Your task to perform on an android device: Open Youtube and go to "Your channel" Image 0: 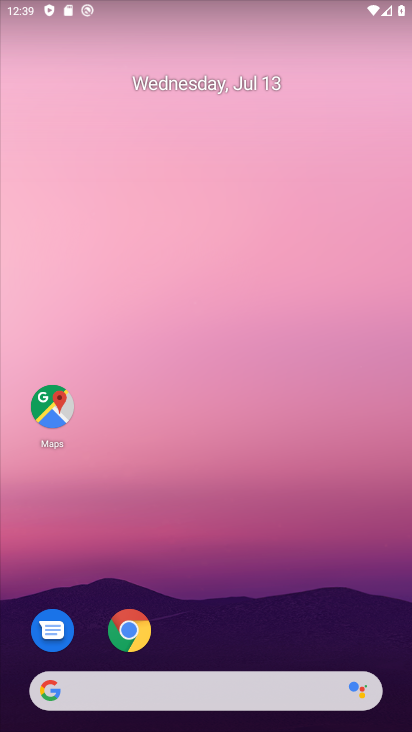
Step 0: drag from (33, 725) to (367, 95)
Your task to perform on an android device: Open Youtube and go to "Your channel" Image 1: 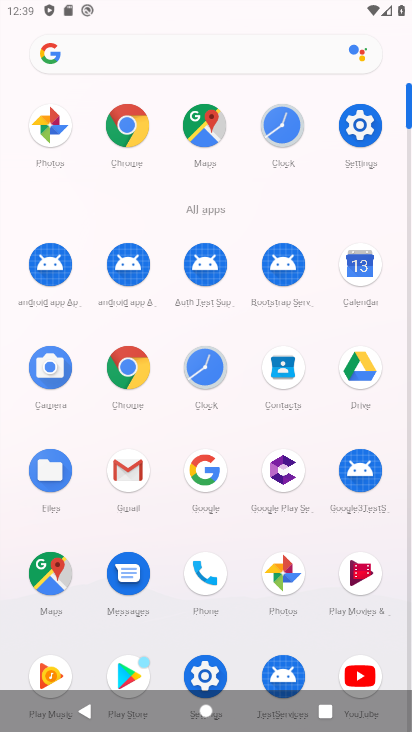
Step 1: click (373, 662)
Your task to perform on an android device: Open Youtube and go to "Your channel" Image 2: 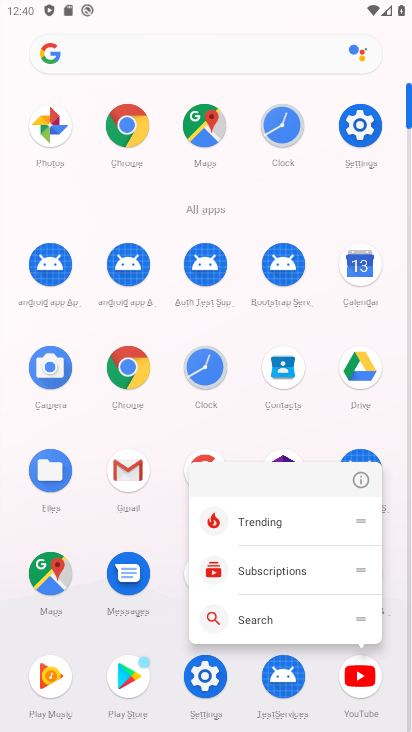
Step 2: click (355, 663)
Your task to perform on an android device: Open Youtube and go to "Your channel" Image 3: 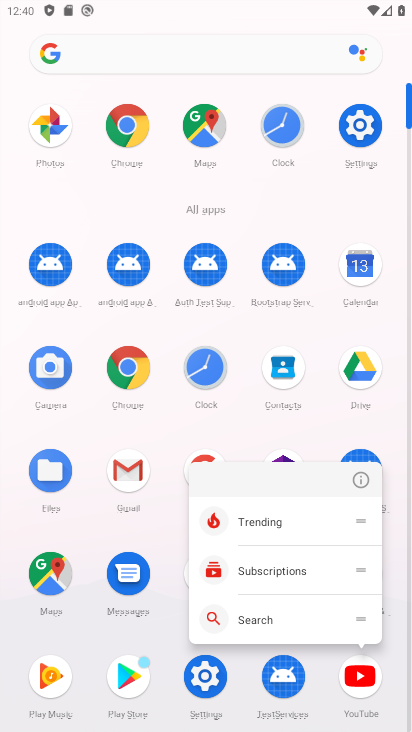
Step 3: click (355, 669)
Your task to perform on an android device: Open Youtube and go to "Your channel" Image 4: 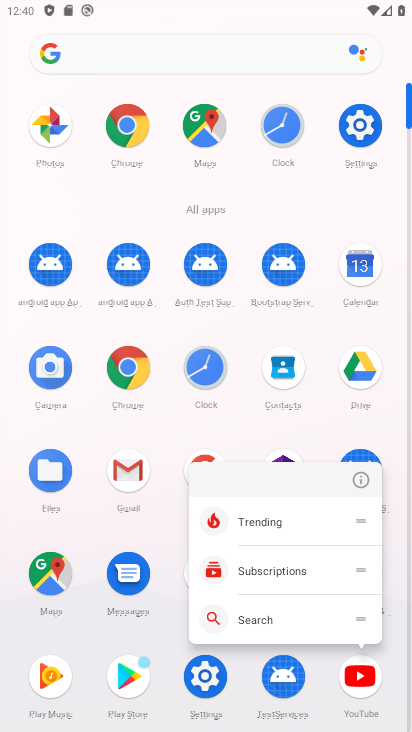
Step 4: click (361, 699)
Your task to perform on an android device: Open Youtube and go to "Your channel" Image 5: 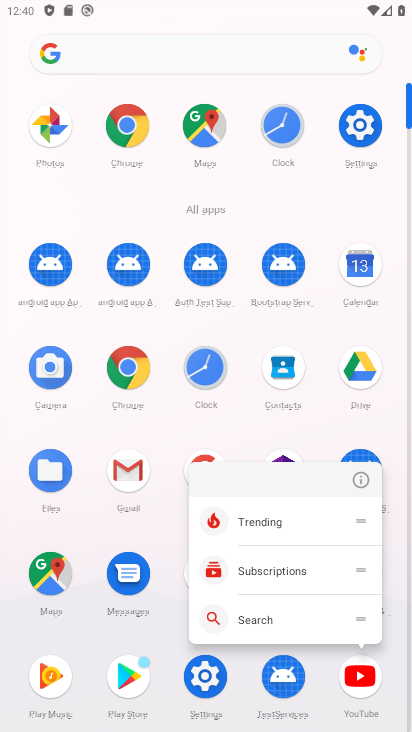
Step 5: click (362, 668)
Your task to perform on an android device: Open Youtube and go to "Your channel" Image 6: 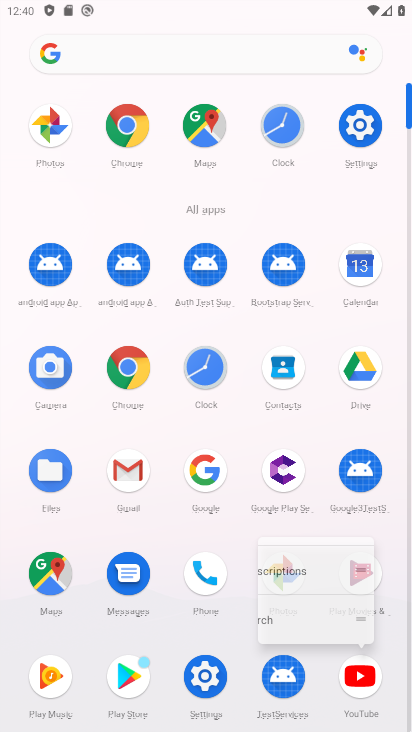
Step 6: click (362, 668)
Your task to perform on an android device: Open Youtube and go to "Your channel" Image 7: 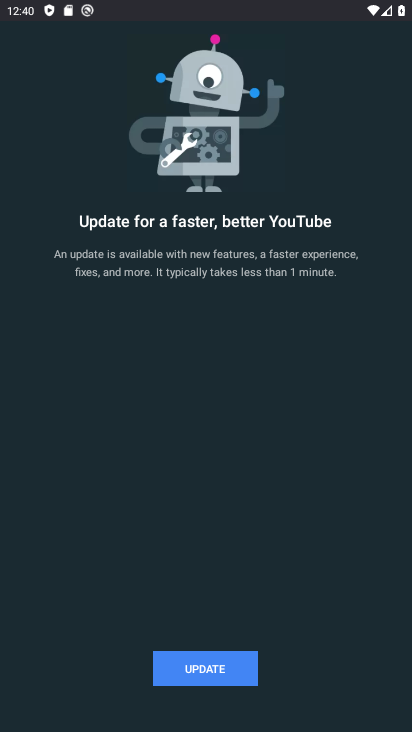
Step 7: click (184, 681)
Your task to perform on an android device: Open Youtube and go to "Your channel" Image 8: 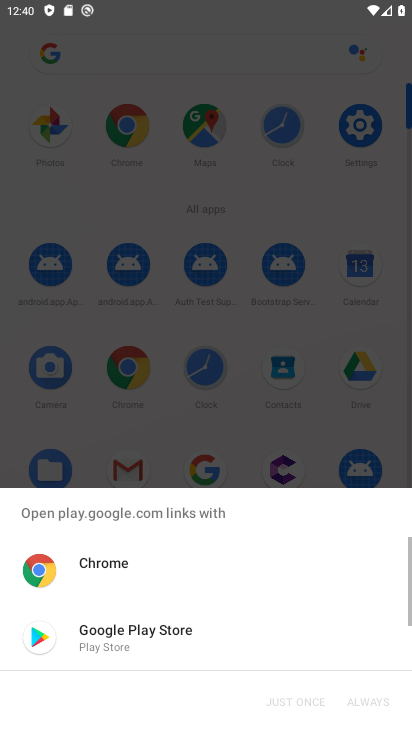
Step 8: click (83, 645)
Your task to perform on an android device: Open Youtube and go to "Your channel" Image 9: 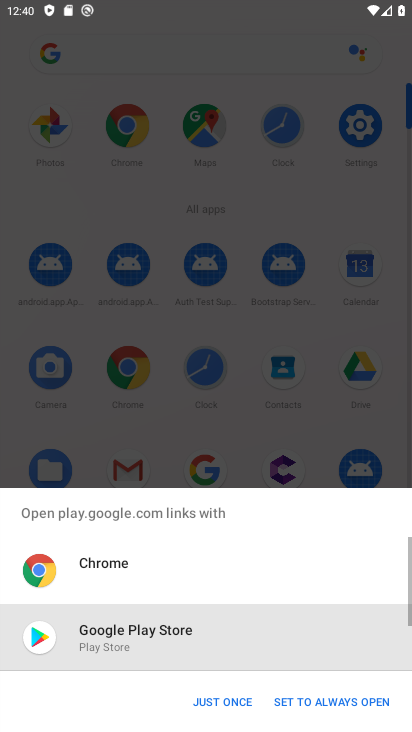
Step 9: click (245, 701)
Your task to perform on an android device: Open Youtube and go to "Your channel" Image 10: 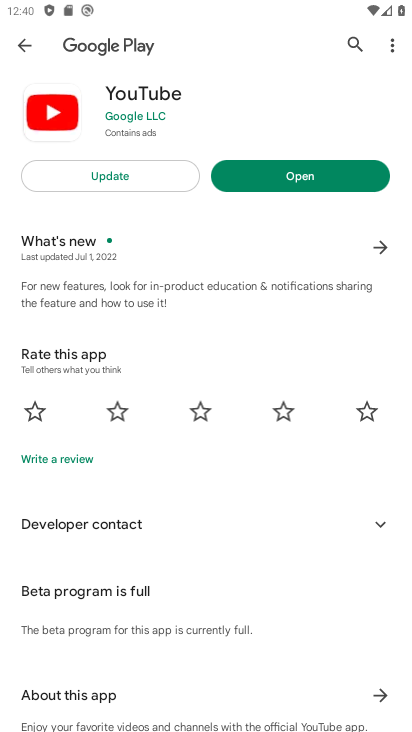
Step 10: click (293, 180)
Your task to perform on an android device: Open Youtube and go to "Your channel" Image 11: 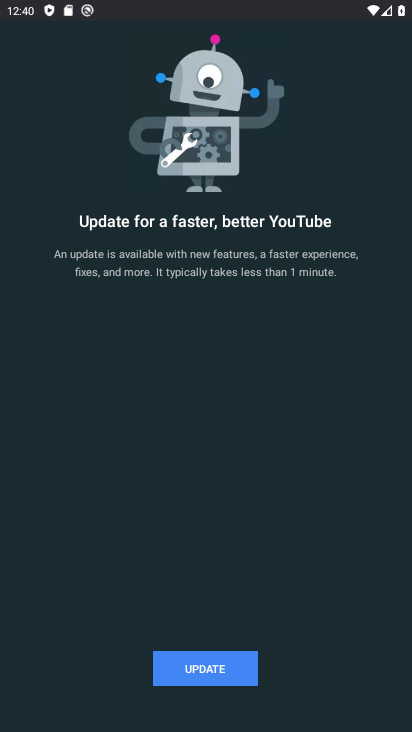
Step 11: task complete